Your task to perform on an android device: empty trash in the gmail app Image 0: 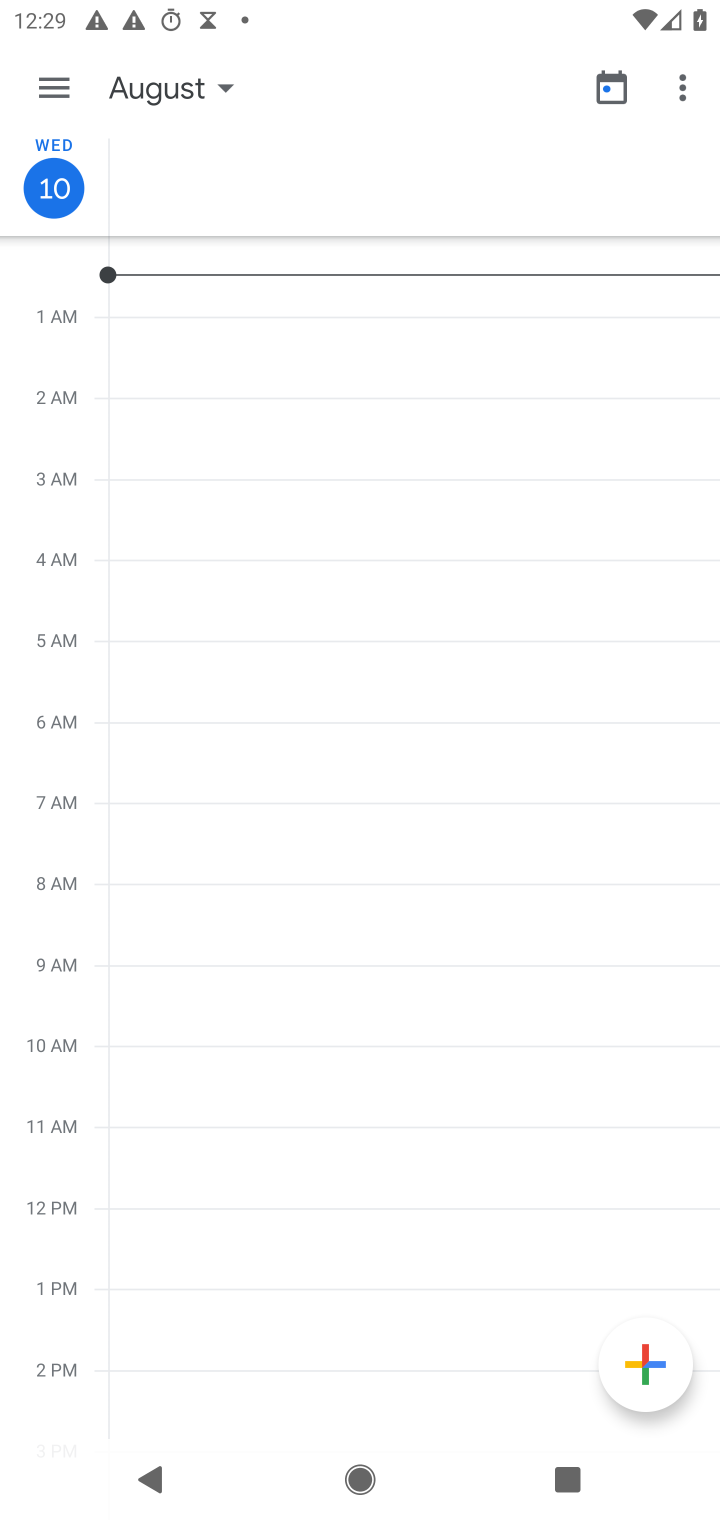
Step 0: press home button
Your task to perform on an android device: empty trash in the gmail app Image 1: 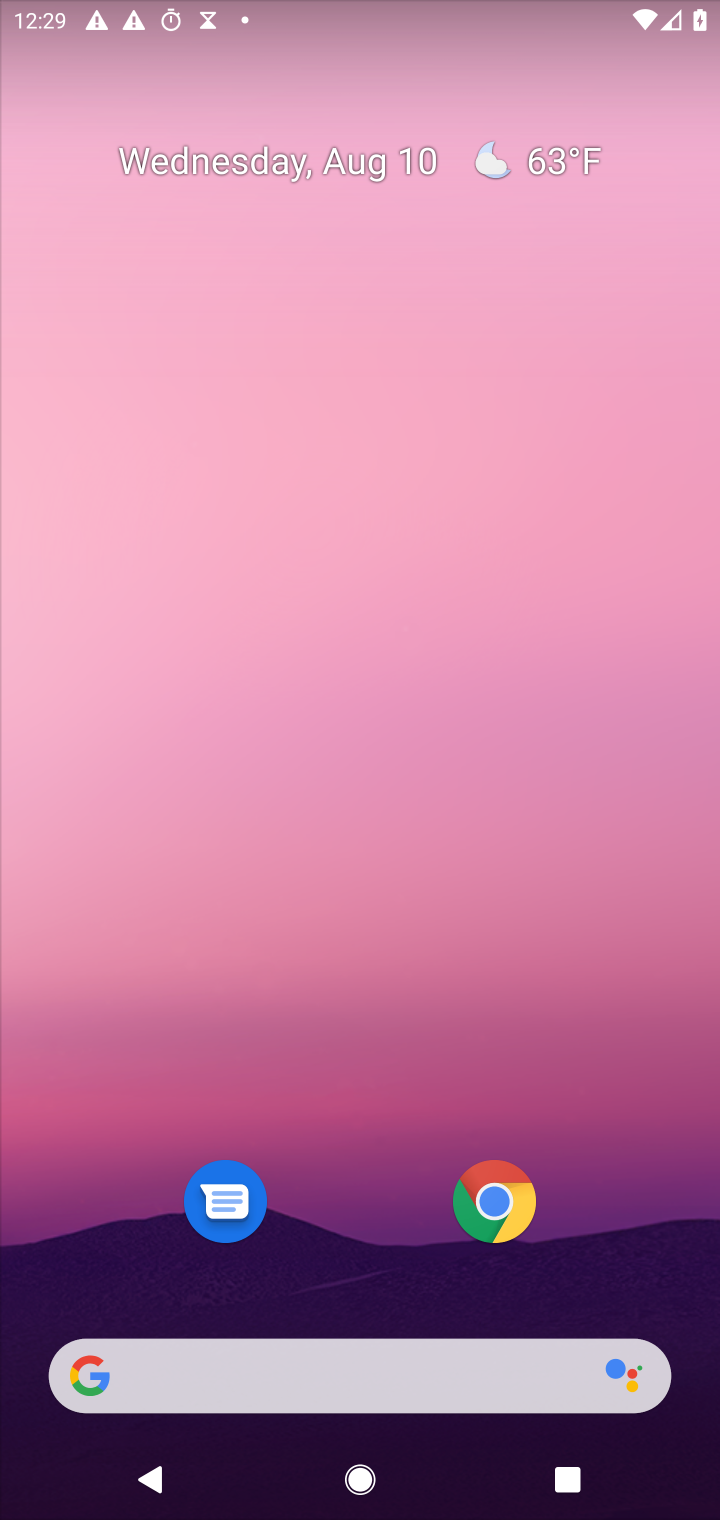
Step 1: drag from (383, 1182) to (390, 171)
Your task to perform on an android device: empty trash in the gmail app Image 2: 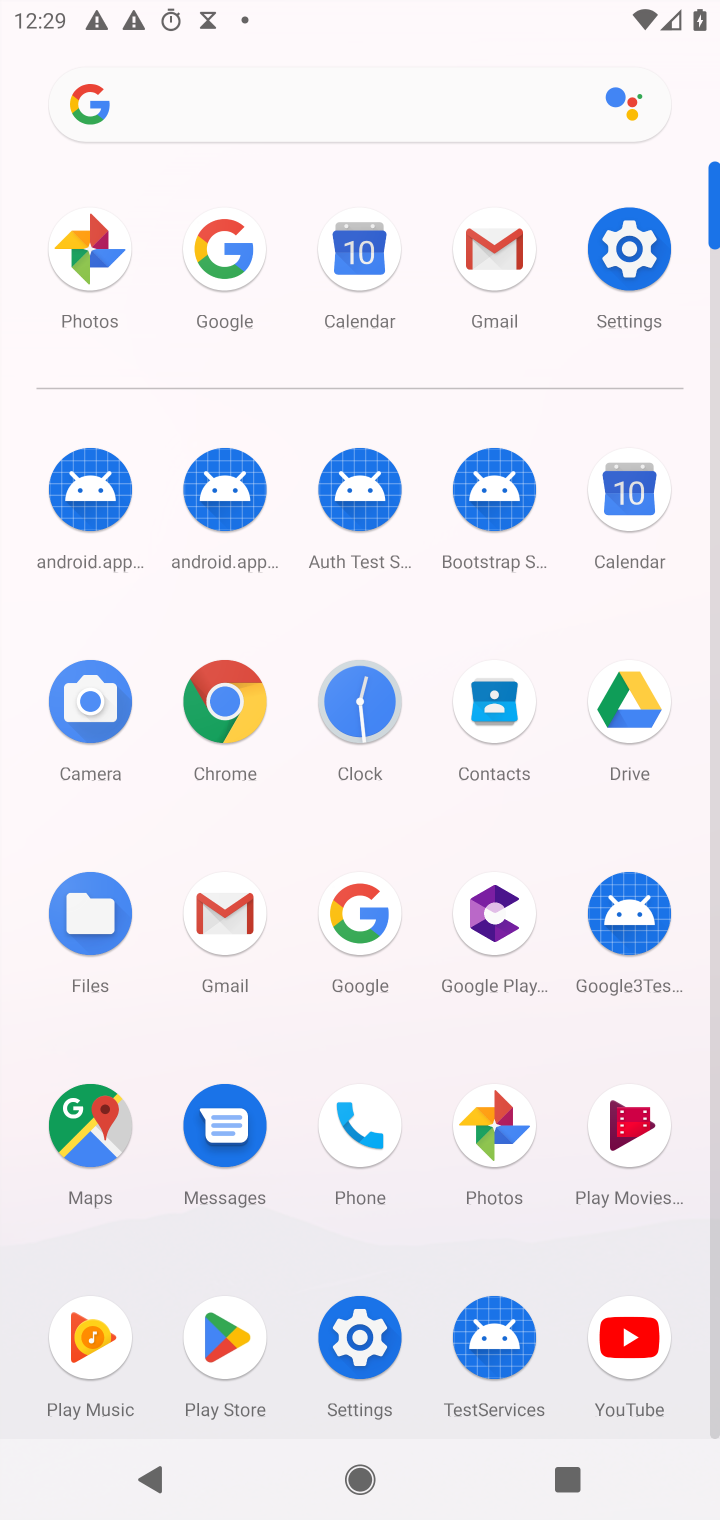
Step 2: click (496, 258)
Your task to perform on an android device: empty trash in the gmail app Image 3: 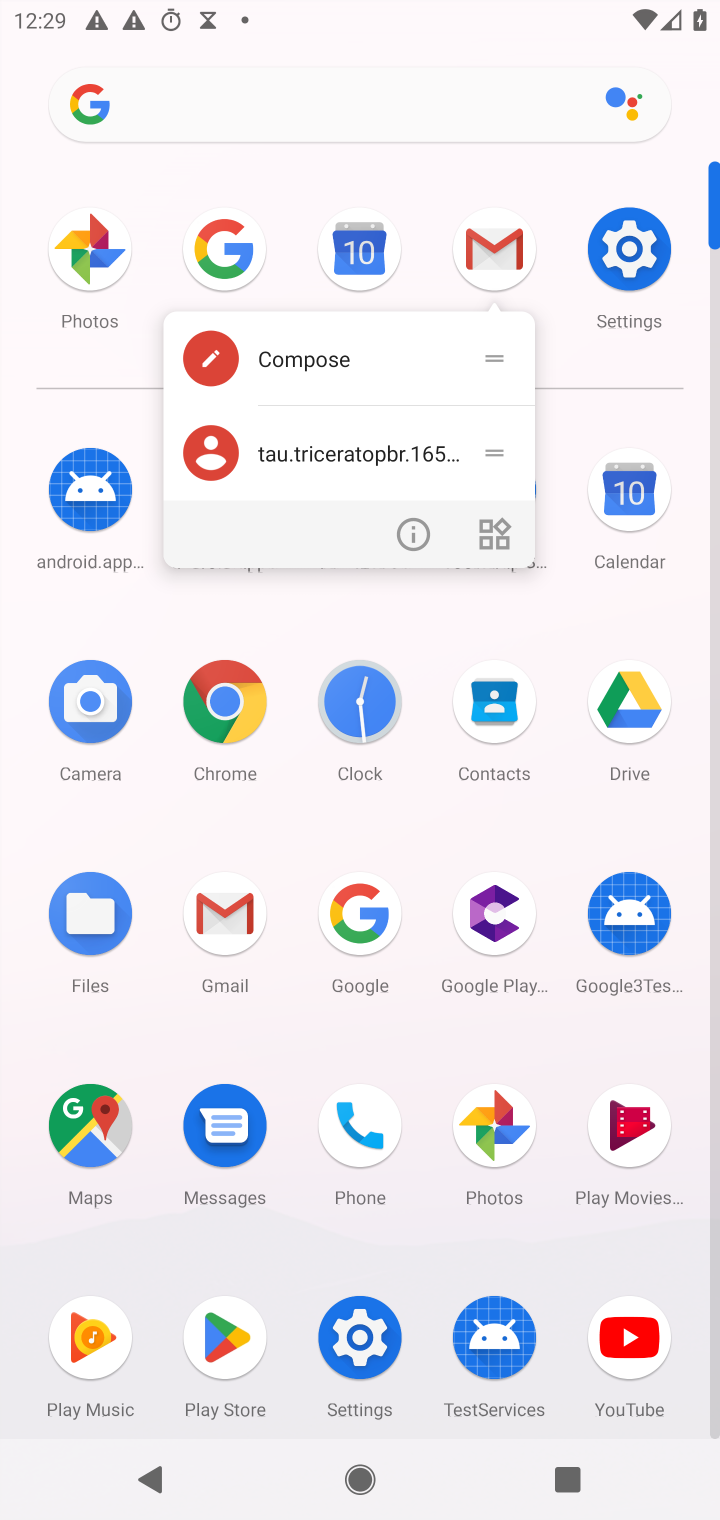
Step 3: click (490, 238)
Your task to perform on an android device: empty trash in the gmail app Image 4: 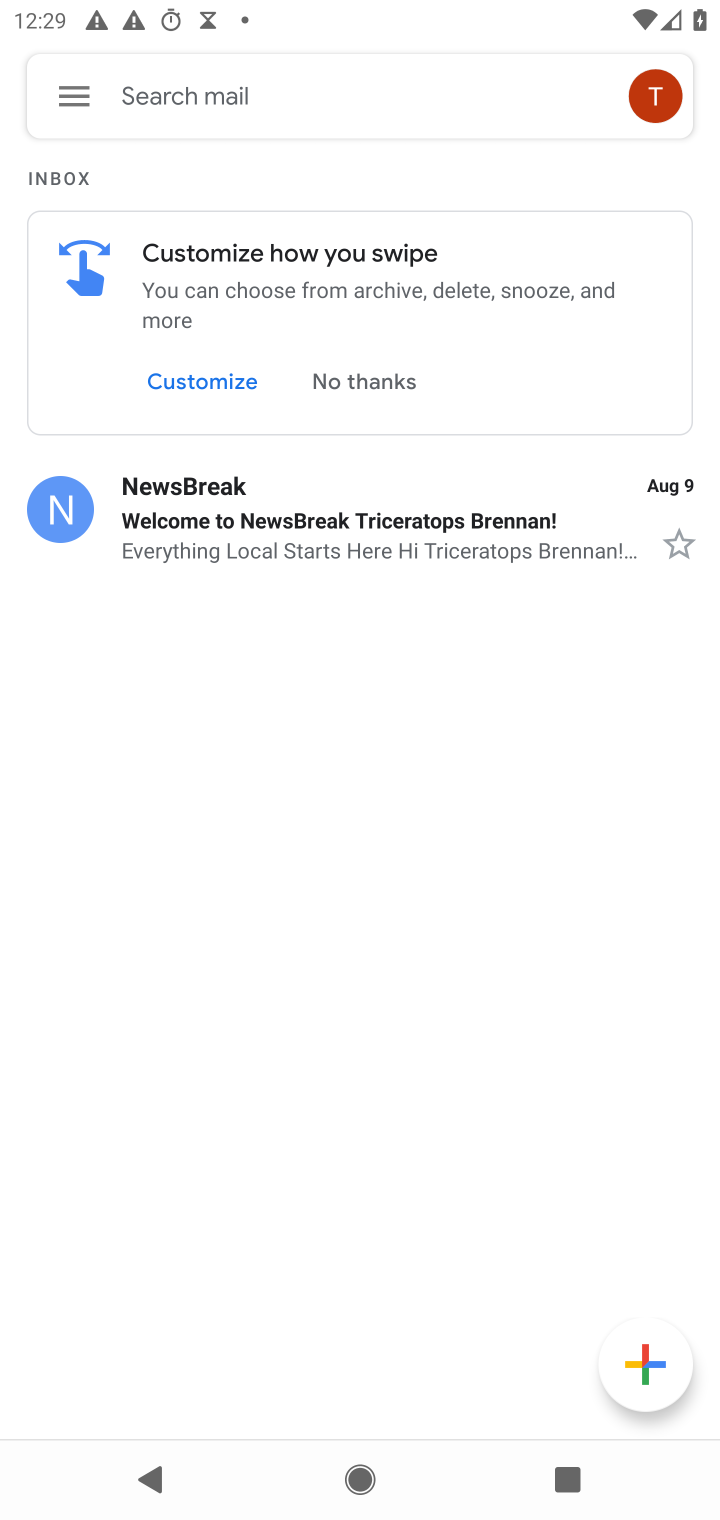
Step 4: click (77, 101)
Your task to perform on an android device: empty trash in the gmail app Image 5: 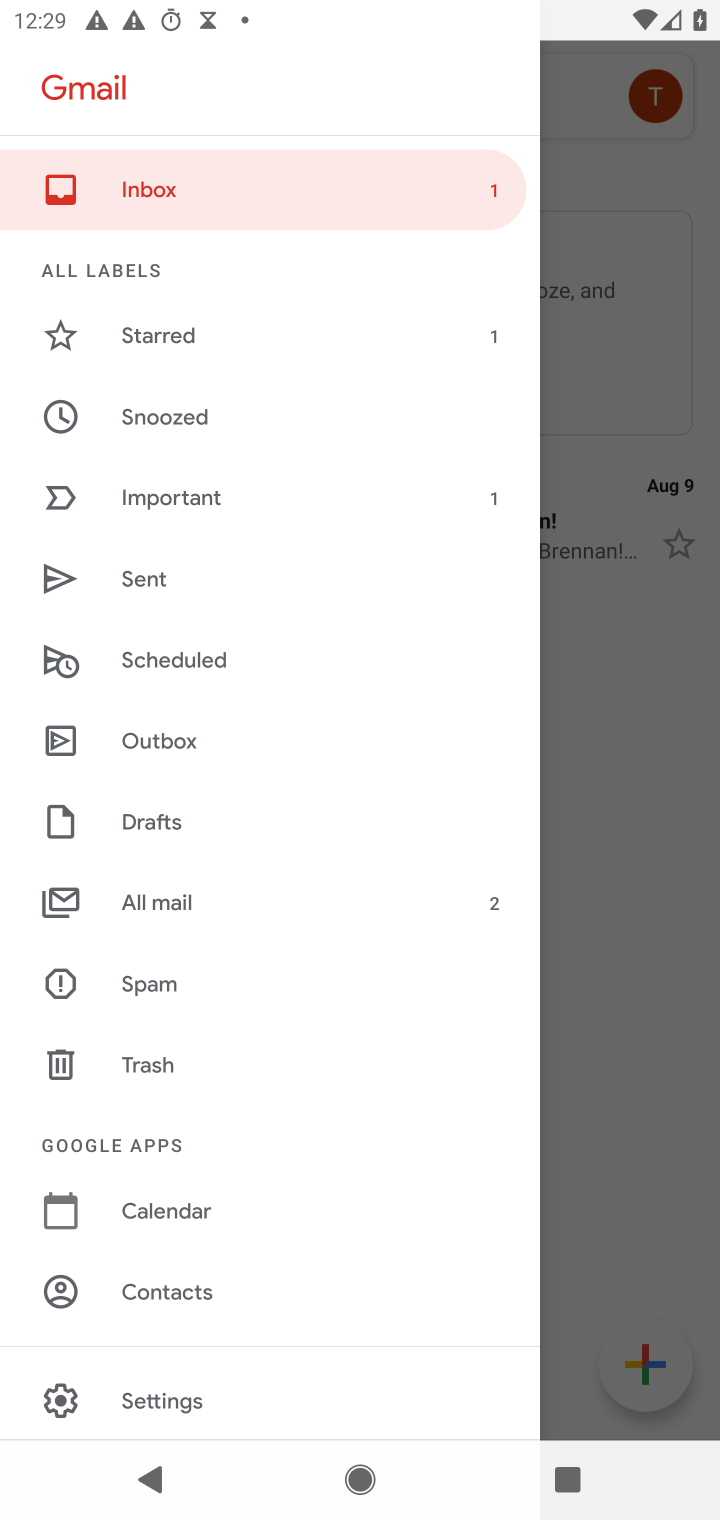
Step 5: click (141, 1058)
Your task to perform on an android device: empty trash in the gmail app Image 6: 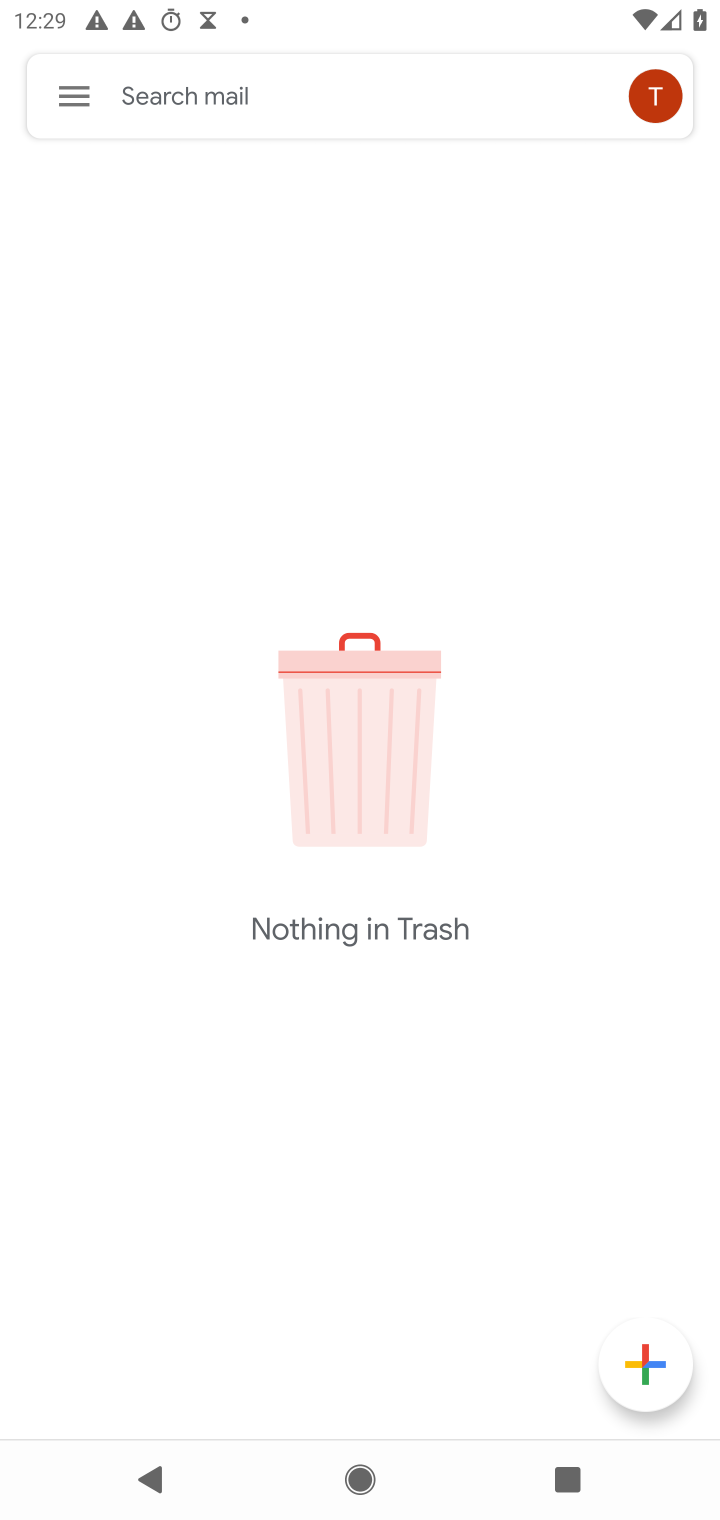
Step 6: task complete